Your task to perform on an android device: turn off javascript in the chrome app Image 0: 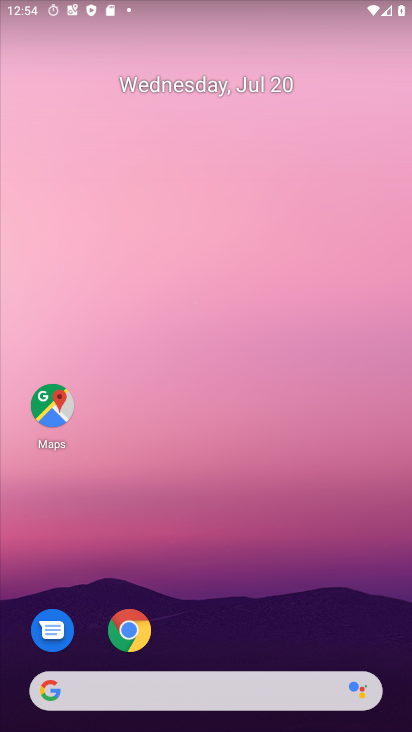
Step 0: click (126, 619)
Your task to perform on an android device: turn off javascript in the chrome app Image 1: 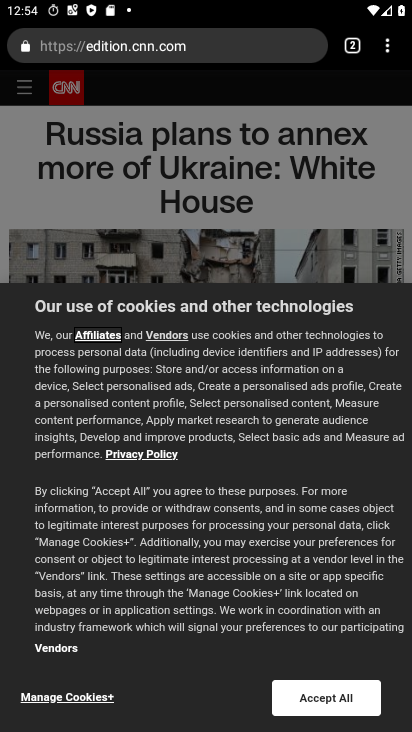
Step 1: click (387, 33)
Your task to perform on an android device: turn off javascript in the chrome app Image 2: 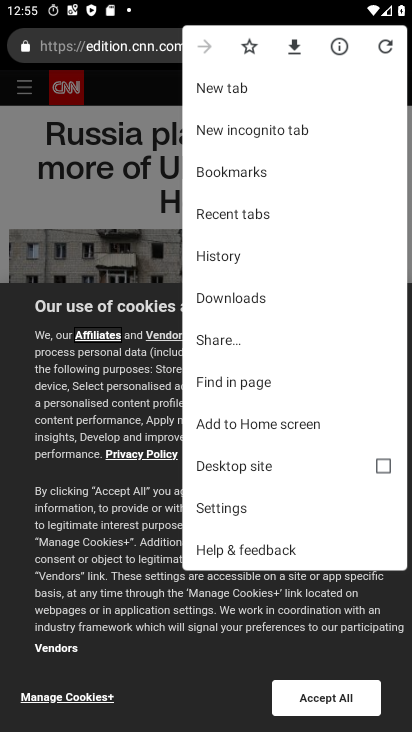
Step 2: click (253, 513)
Your task to perform on an android device: turn off javascript in the chrome app Image 3: 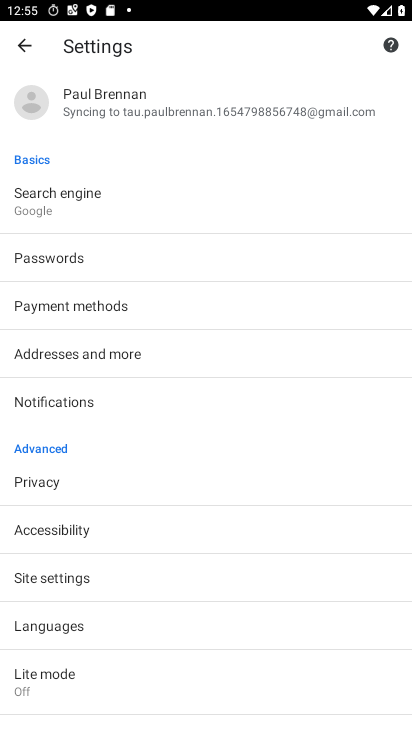
Step 3: click (137, 577)
Your task to perform on an android device: turn off javascript in the chrome app Image 4: 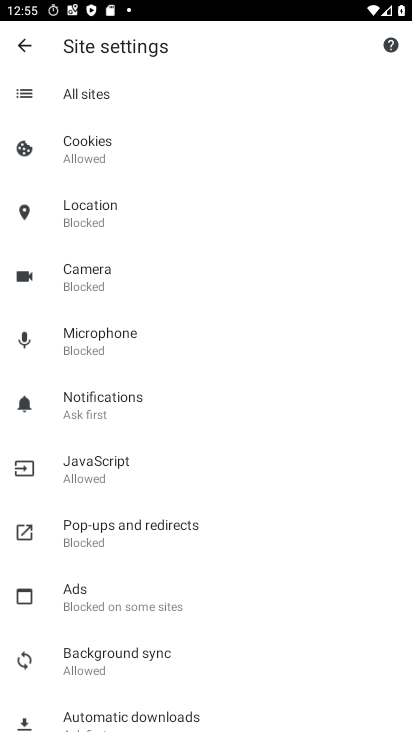
Step 4: click (121, 472)
Your task to perform on an android device: turn off javascript in the chrome app Image 5: 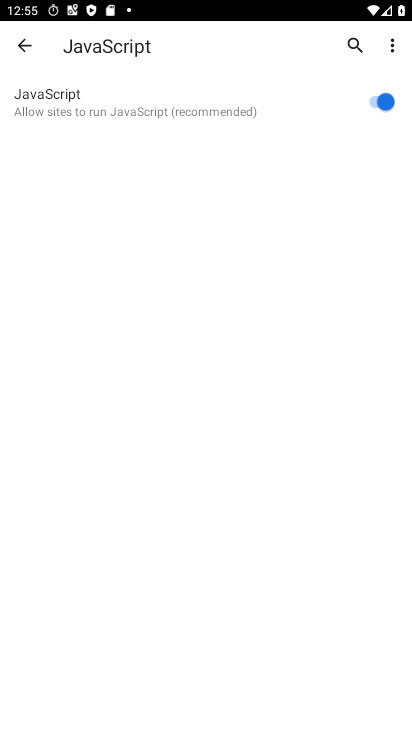
Step 5: click (368, 94)
Your task to perform on an android device: turn off javascript in the chrome app Image 6: 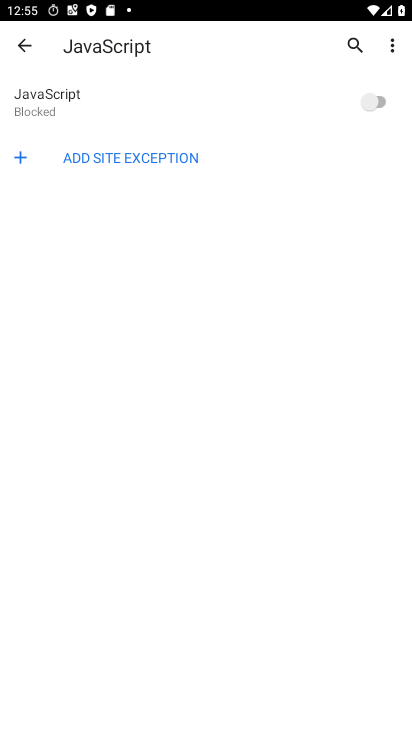
Step 6: task complete